Your task to perform on an android device: turn on translation in the chrome app Image 0: 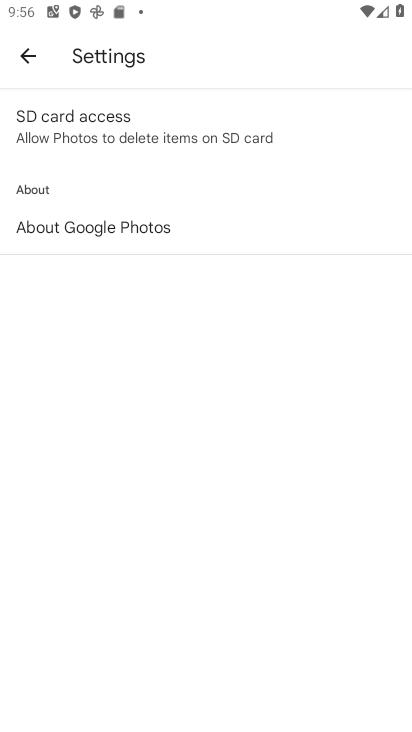
Step 0: press home button
Your task to perform on an android device: turn on translation in the chrome app Image 1: 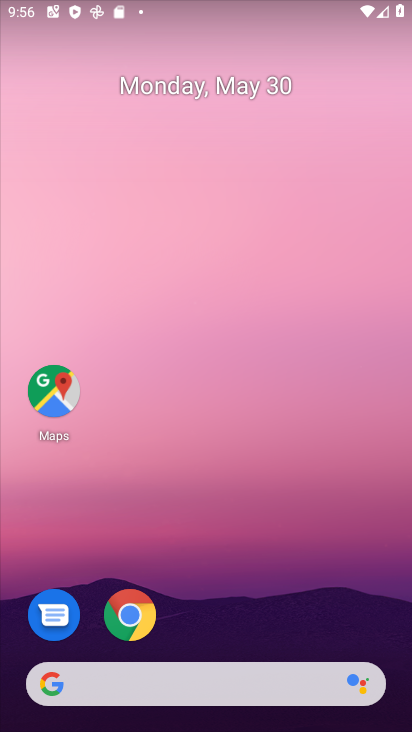
Step 1: click (129, 626)
Your task to perform on an android device: turn on translation in the chrome app Image 2: 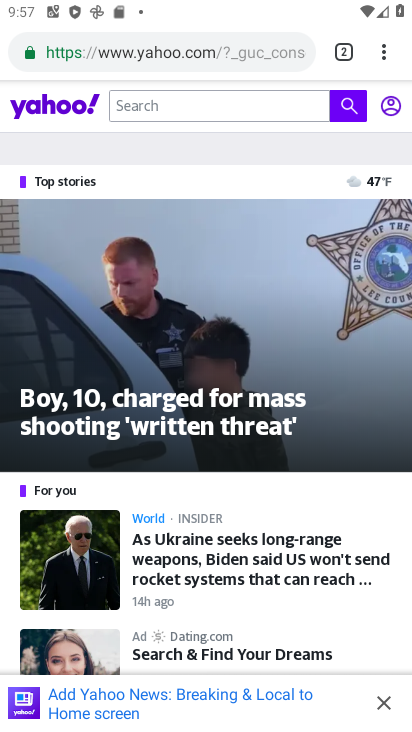
Step 2: click (383, 57)
Your task to perform on an android device: turn on translation in the chrome app Image 3: 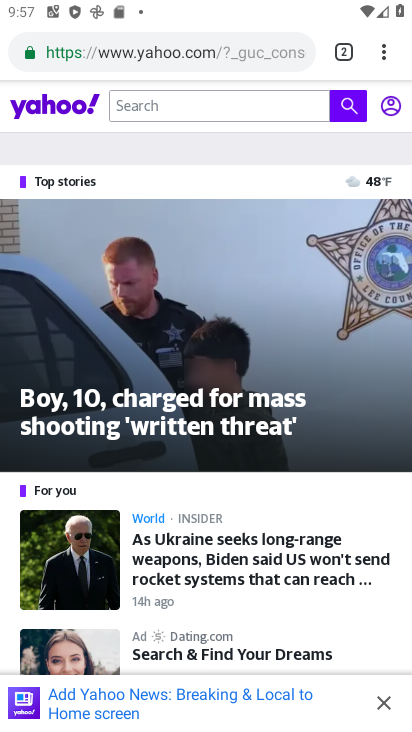
Step 3: click (377, 48)
Your task to perform on an android device: turn on translation in the chrome app Image 4: 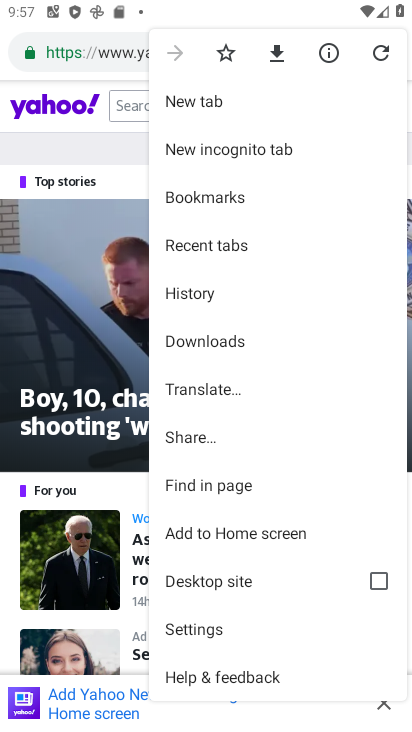
Step 4: click (227, 630)
Your task to perform on an android device: turn on translation in the chrome app Image 5: 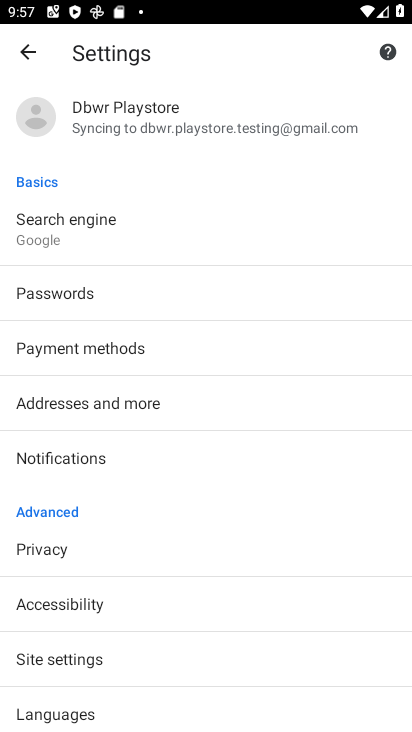
Step 5: click (101, 706)
Your task to perform on an android device: turn on translation in the chrome app Image 6: 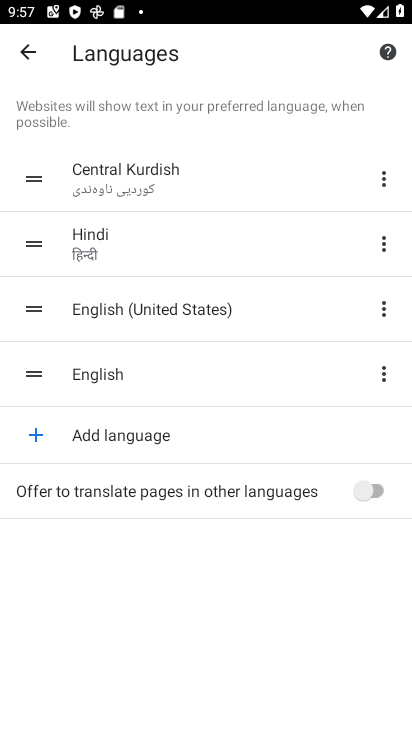
Step 6: click (367, 498)
Your task to perform on an android device: turn on translation in the chrome app Image 7: 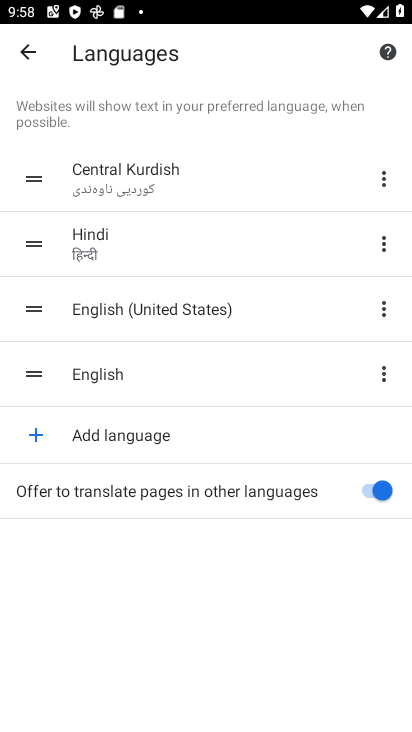
Step 7: task complete